Your task to perform on an android device: Is it going to rain tomorrow? Image 0: 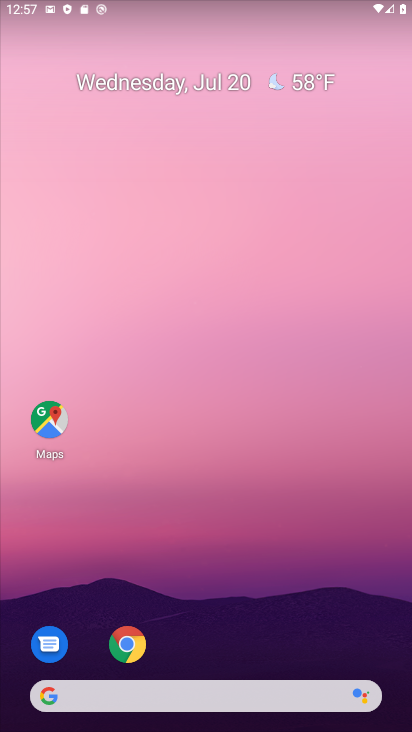
Step 0: drag from (213, 650) to (271, 9)
Your task to perform on an android device: Is it going to rain tomorrow? Image 1: 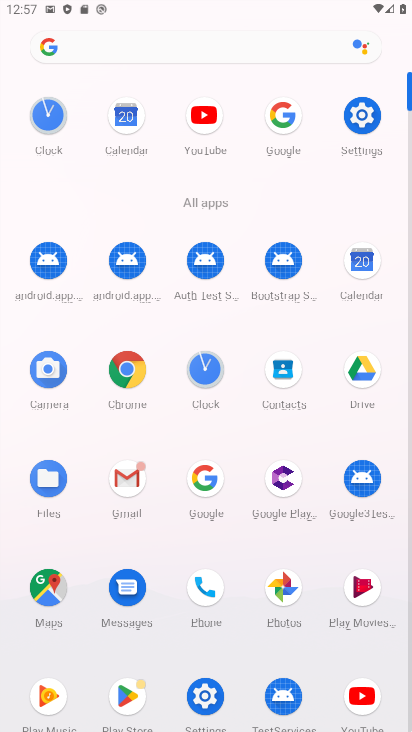
Step 1: click (202, 475)
Your task to perform on an android device: Is it going to rain tomorrow? Image 2: 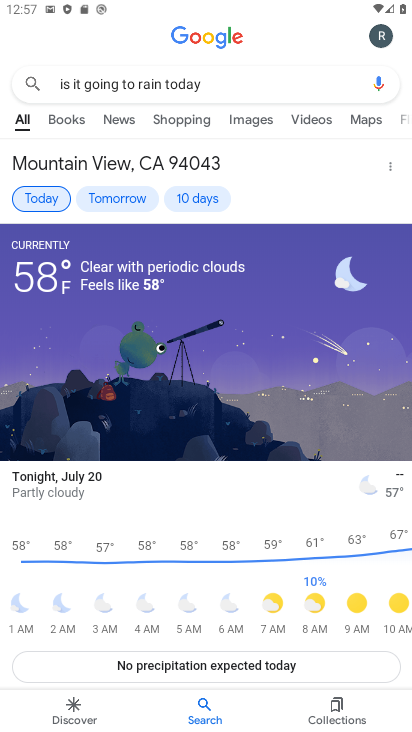
Step 2: click (265, 85)
Your task to perform on an android device: Is it going to rain tomorrow? Image 3: 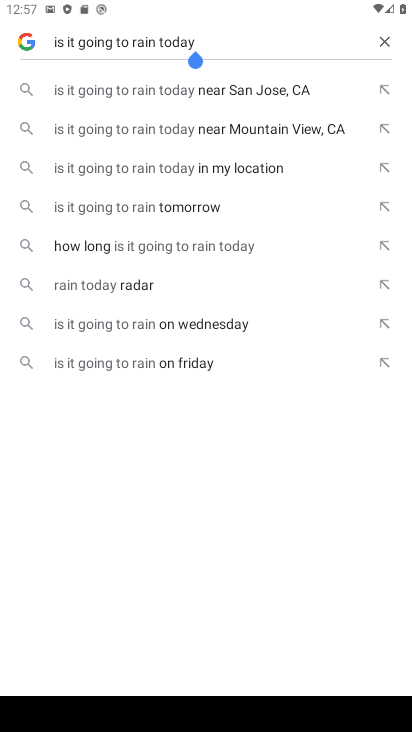
Step 3: click (382, 43)
Your task to perform on an android device: Is it going to rain tomorrow? Image 4: 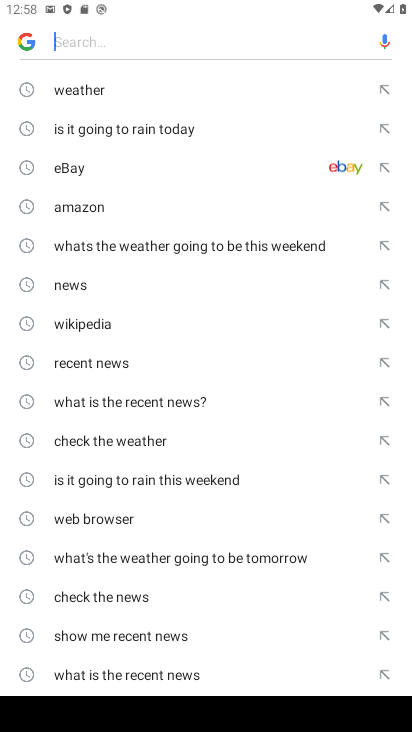
Step 4: type "is it going to rain tomorrow?"
Your task to perform on an android device: Is it going to rain tomorrow? Image 5: 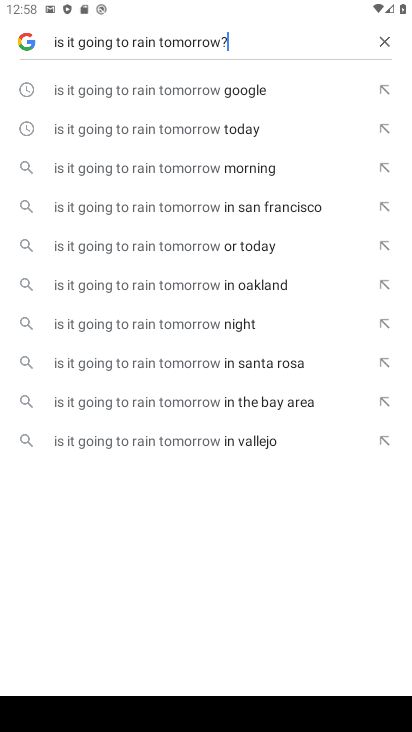
Step 5: click (167, 130)
Your task to perform on an android device: Is it going to rain tomorrow? Image 6: 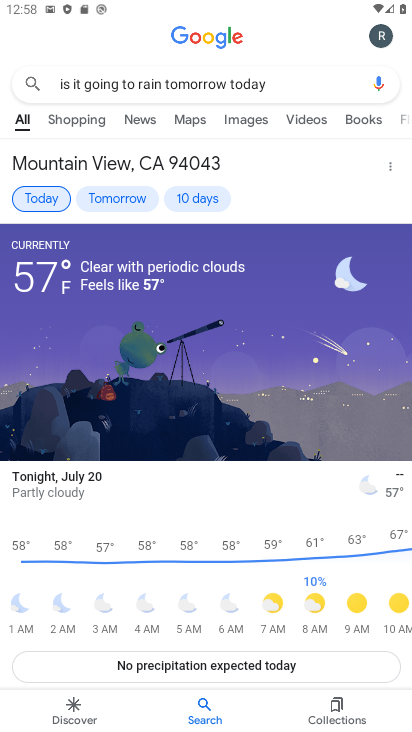
Step 6: click (119, 205)
Your task to perform on an android device: Is it going to rain tomorrow? Image 7: 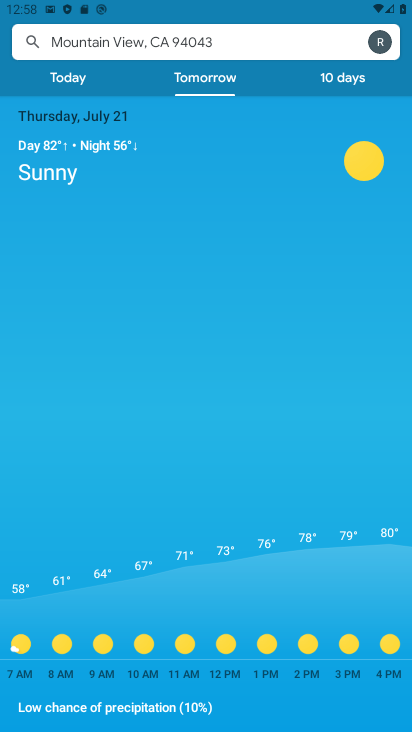
Step 7: task complete